Your task to perform on an android device: turn pop-ups on in chrome Image 0: 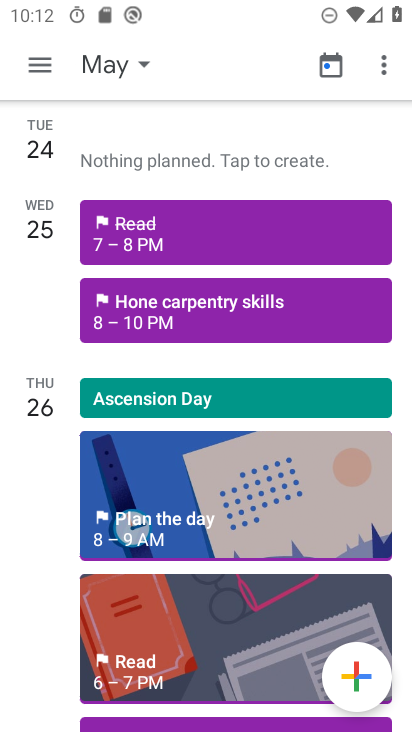
Step 0: drag from (193, 642) to (274, 136)
Your task to perform on an android device: turn pop-ups on in chrome Image 1: 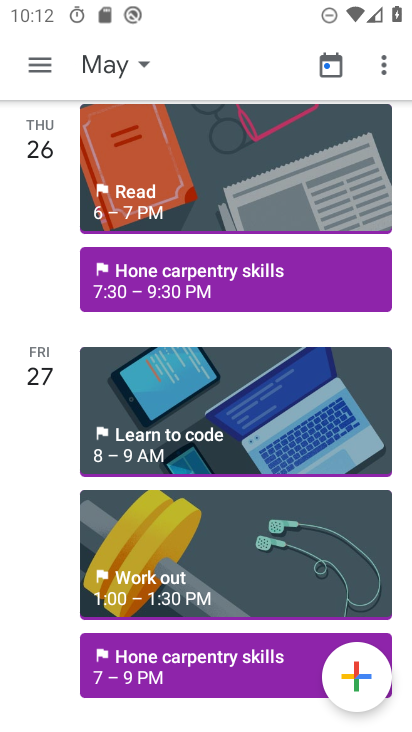
Step 1: press home button
Your task to perform on an android device: turn pop-ups on in chrome Image 2: 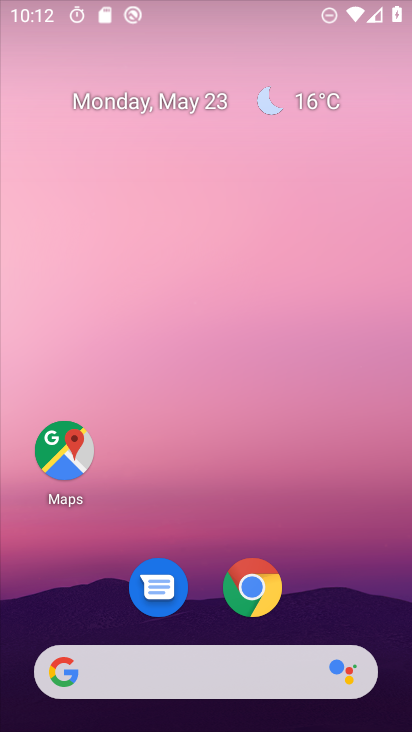
Step 2: drag from (207, 528) to (278, 85)
Your task to perform on an android device: turn pop-ups on in chrome Image 3: 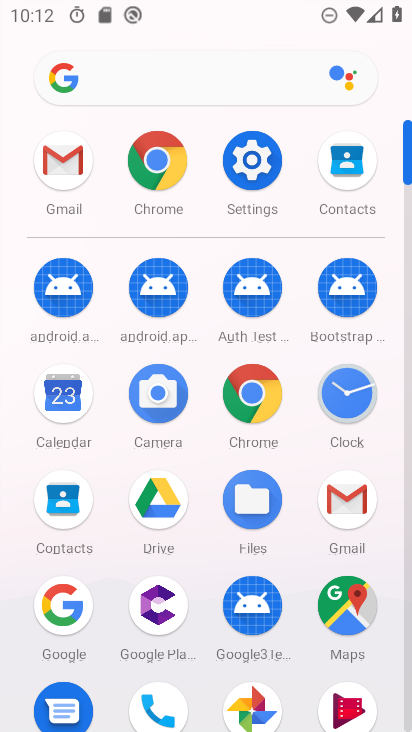
Step 3: click (157, 167)
Your task to perform on an android device: turn pop-ups on in chrome Image 4: 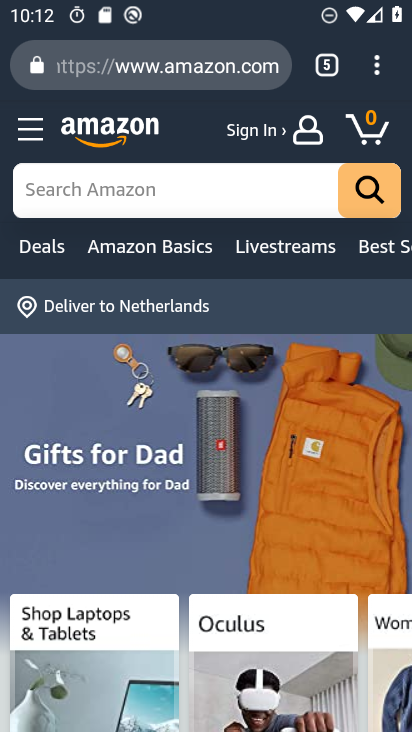
Step 4: drag from (379, 65) to (161, 637)
Your task to perform on an android device: turn pop-ups on in chrome Image 5: 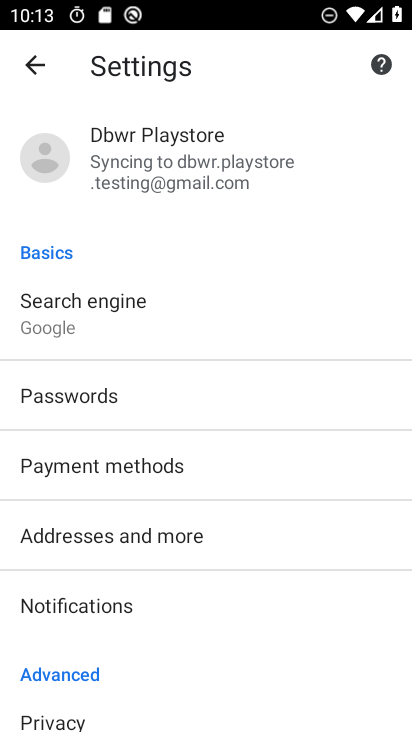
Step 5: drag from (143, 666) to (224, 312)
Your task to perform on an android device: turn pop-ups on in chrome Image 6: 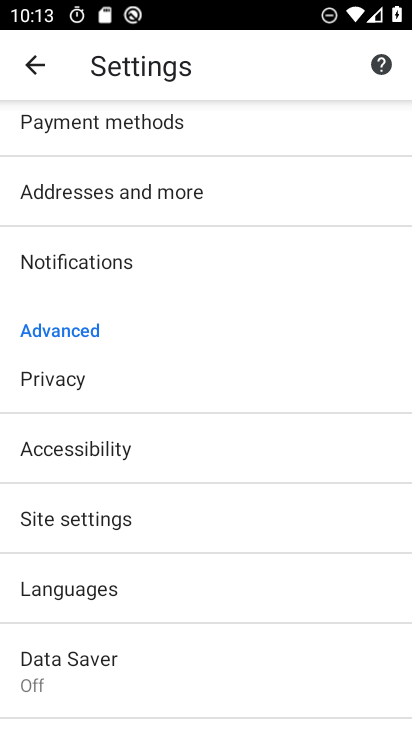
Step 6: click (71, 523)
Your task to perform on an android device: turn pop-ups on in chrome Image 7: 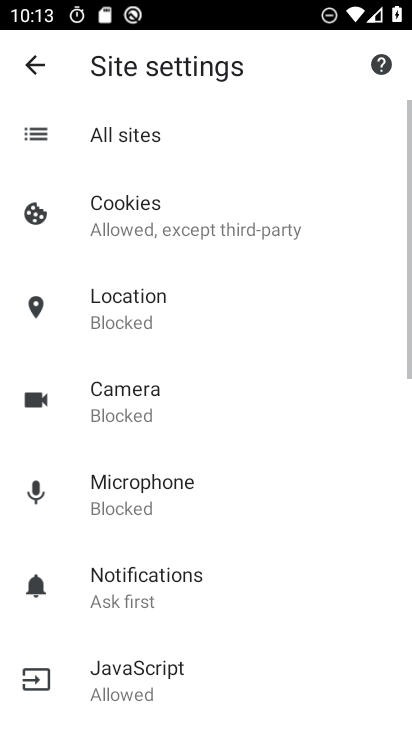
Step 7: drag from (154, 675) to (260, 156)
Your task to perform on an android device: turn pop-ups on in chrome Image 8: 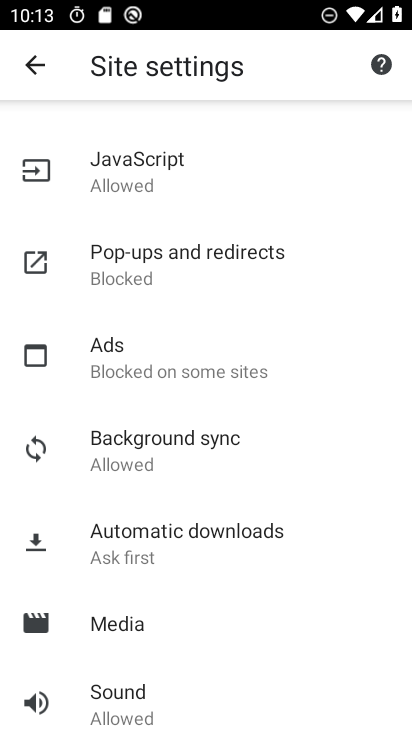
Step 8: click (165, 290)
Your task to perform on an android device: turn pop-ups on in chrome Image 9: 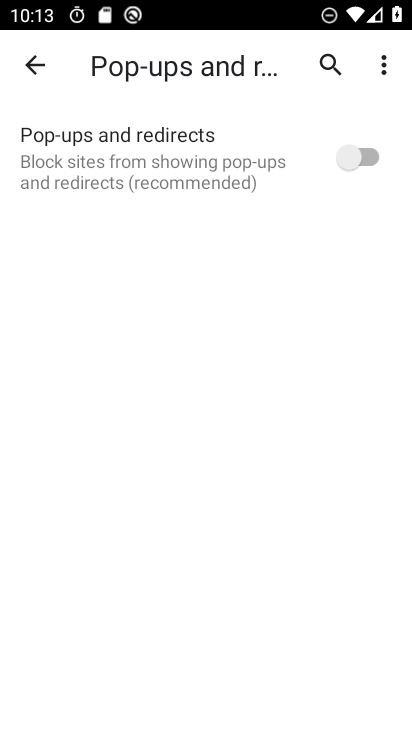
Step 9: click (347, 158)
Your task to perform on an android device: turn pop-ups on in chrome Image 10: 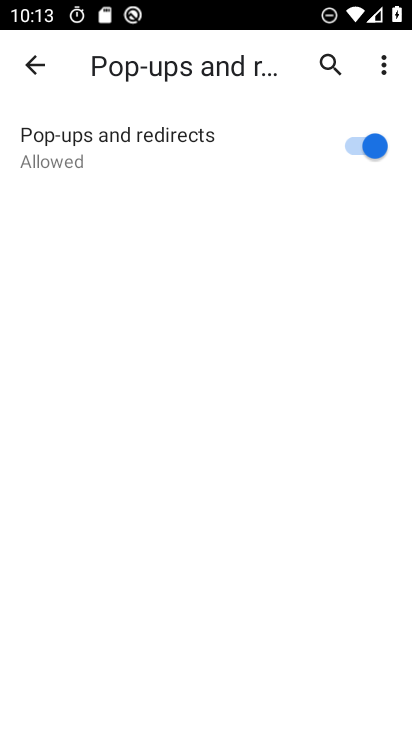
Step 10: task complete